Your task to perform on an android device: What's the weather like in Chicago? Image 0: 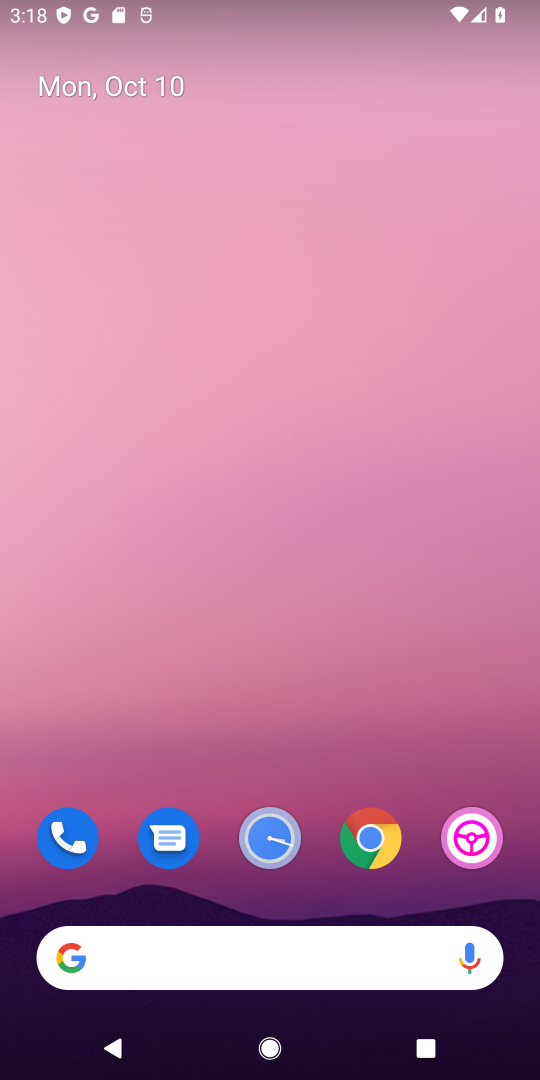
Step 0: click (264, 974)
Your task to perform on an android device: What's the weather like in Chicago? Image 1: 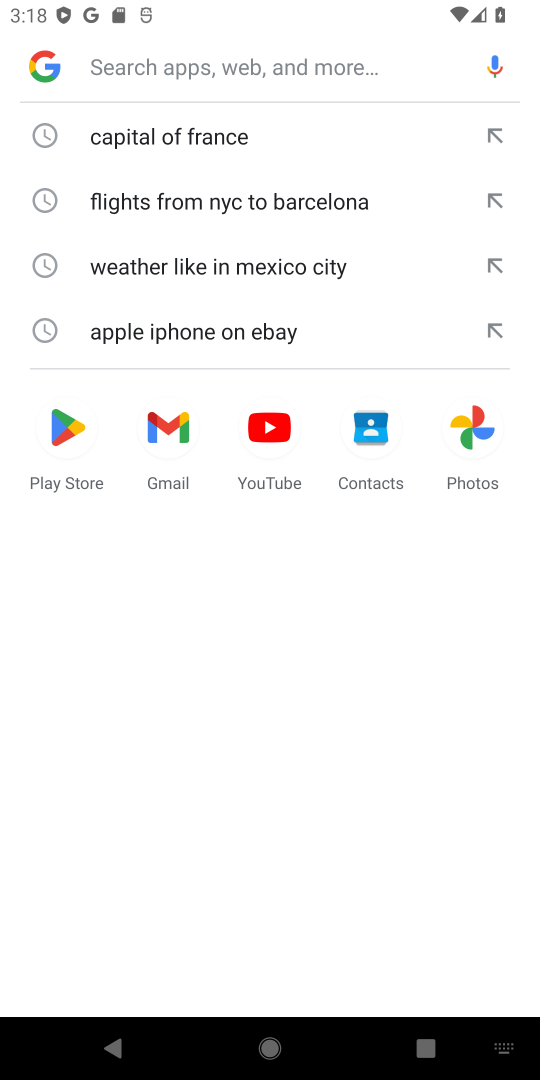
Step 1: type " weather like in Chicago"
Your task to perform on an android device: What's the weather like in Chicago? Image 2: 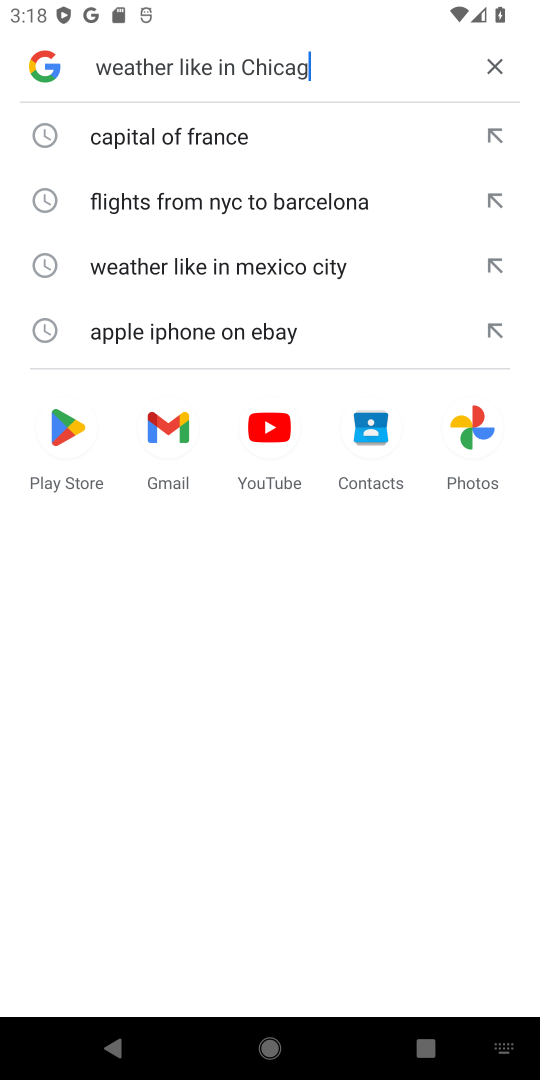
Step 2: type ""
Your task to perform on an android device: What's the weather like in Chicago? Image 3: 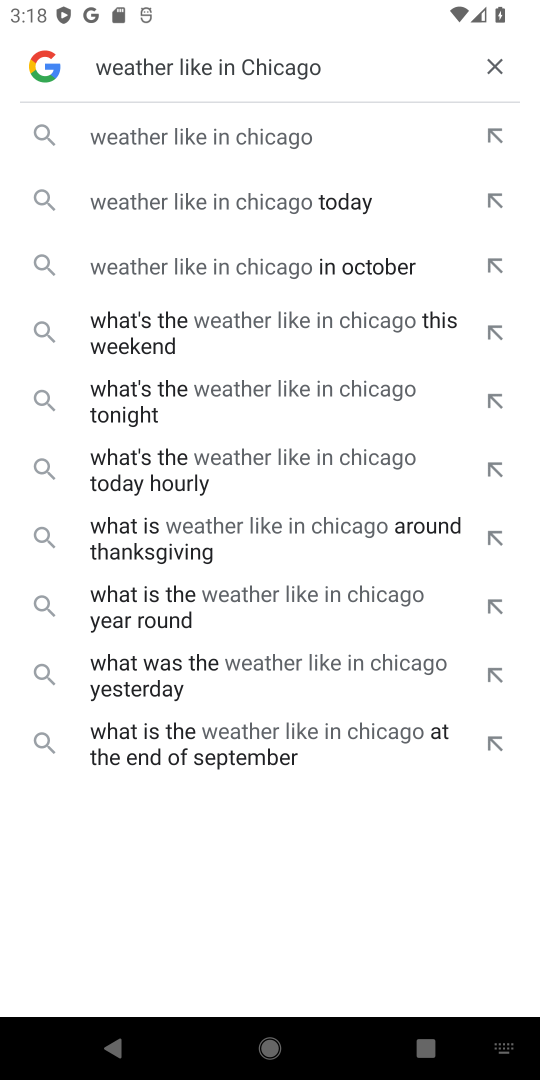
Step 3: click (358, 131)
Your task to perform on an android device: What's the weather like in Chicago? Image 4: 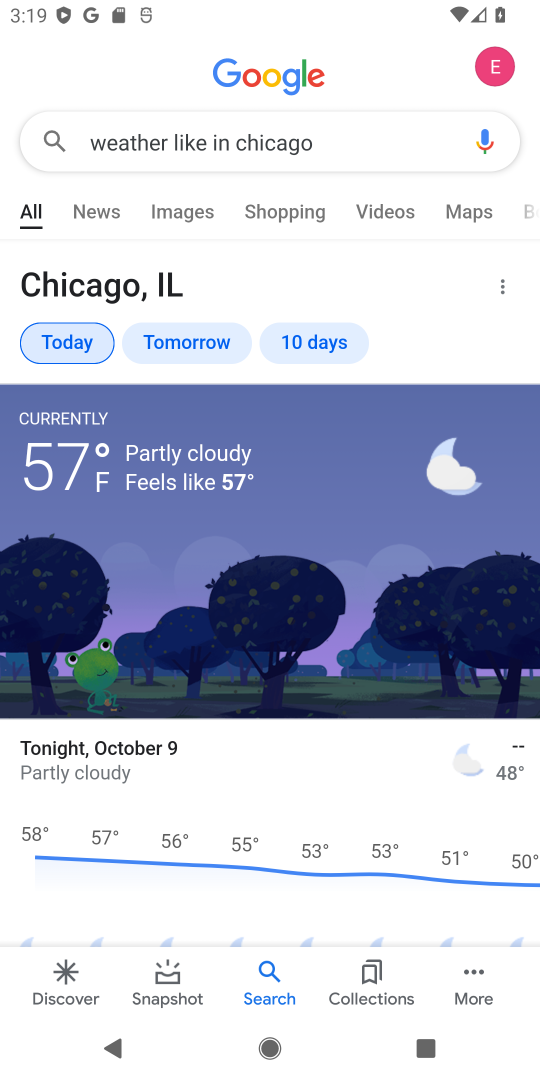
Step 4: task complete